Your task to perform on an android device: star an email in the gmail app Image 0: 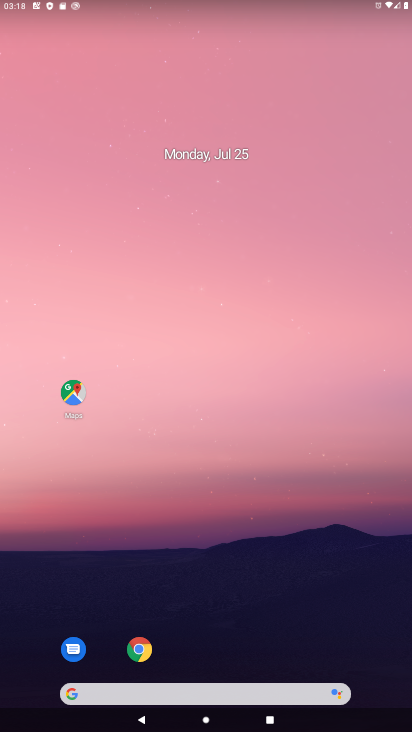
Step 0: drag from (383, 657) to (350, 169)
Your task to perform on an android device: star an email in the gmail app Image 1: 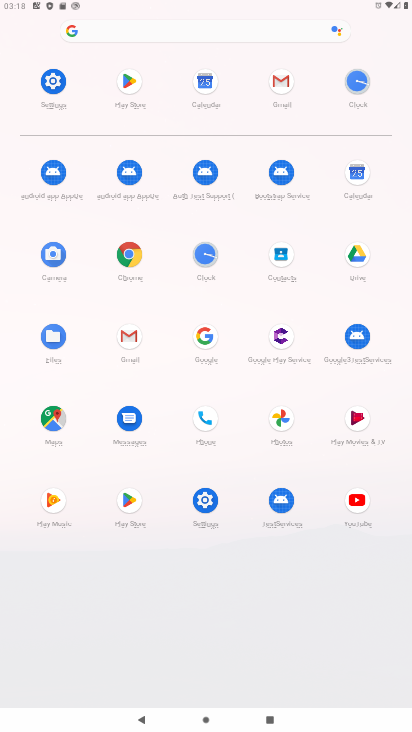
Step 1: click (127, 336)
Your task to perform on an android device: star an email in the gmail app Image 2: 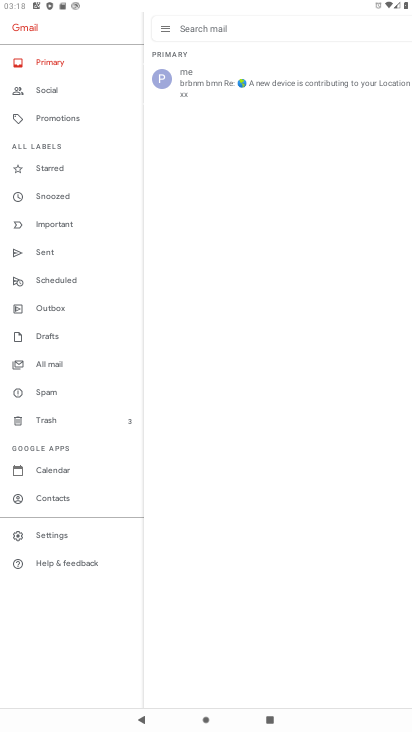
Step 2: click (45, 358)
Your task to perform on an android device: star an email in the gmail app Image 3: 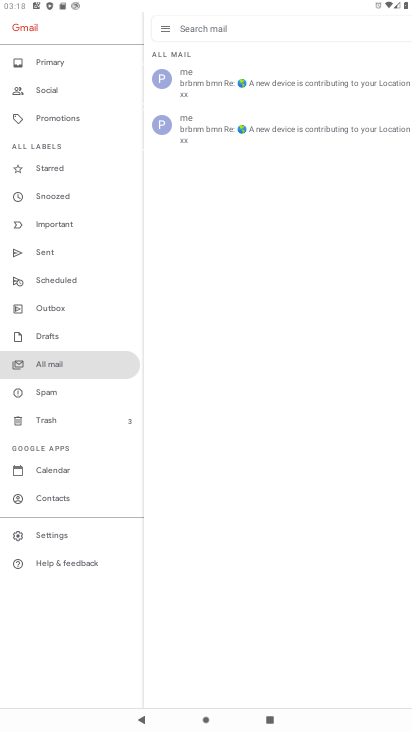
Step 3: click (161, 27)
Your task to perform on an android device: star an email in the gmail app Image 4: 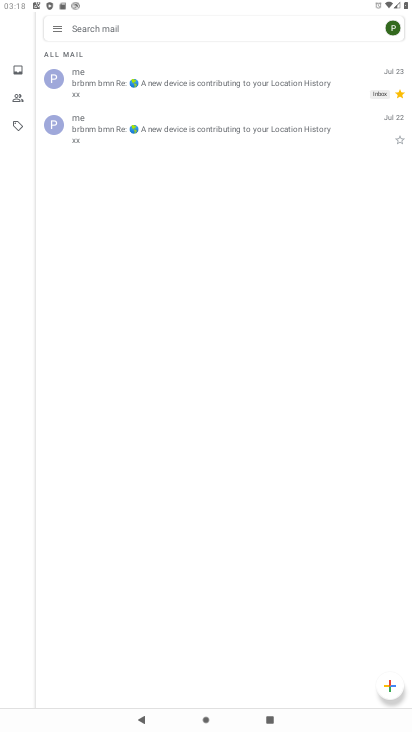
Step 4: click (398, 143)
Your task to perform on an android device: star an email in the gmail app Image 5: 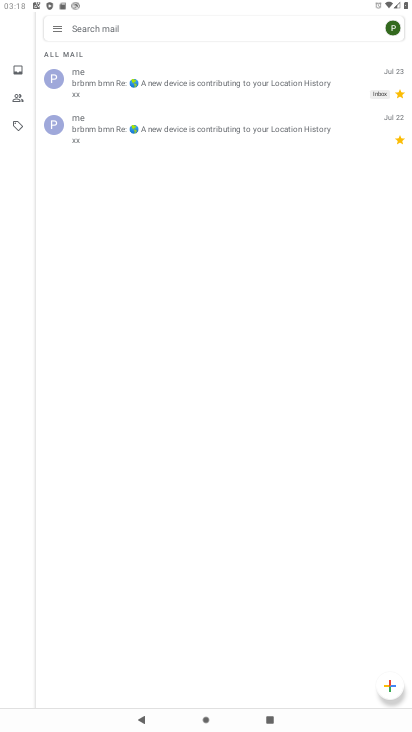
Step 5: task complete